Your task to perform on an android device: Add "bose quietcomfort 35" to the cart on bestbuy, then select checkout. Image 0: 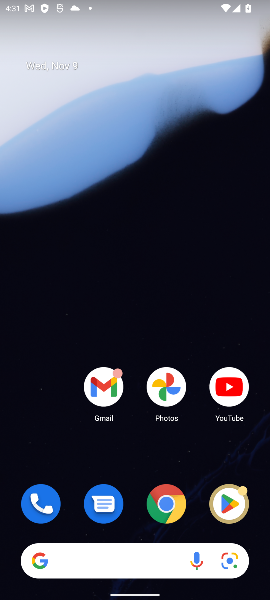
Step 0: click (114, 555)
Your task to perform on an android device: Add "bose quietcomfort 35" to the cart on bestbuy, then select checkout. Image 1: 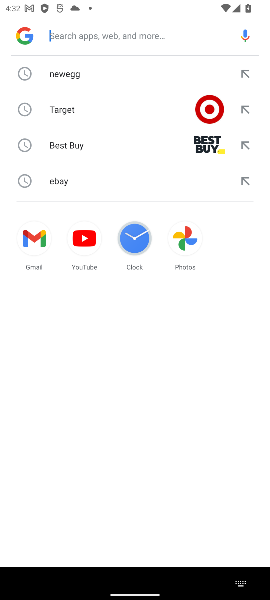
Step 1: click (78, 145)
Your task to perform on an android device: Add "bose quietcomfort 35" to the cart on bestbuy, then select checkout. Image 2: 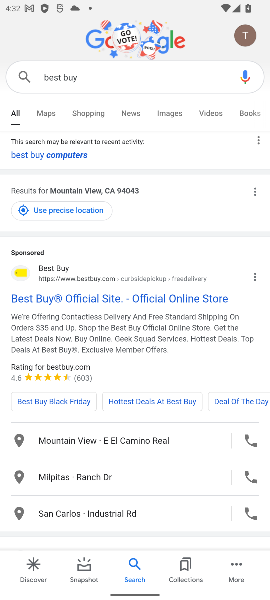
Step 2: click (97, 294)
Your task to perform on an android device: Add "bose quietcomfort 35" to the cart on bestbuy, then select checkout. Image 3: 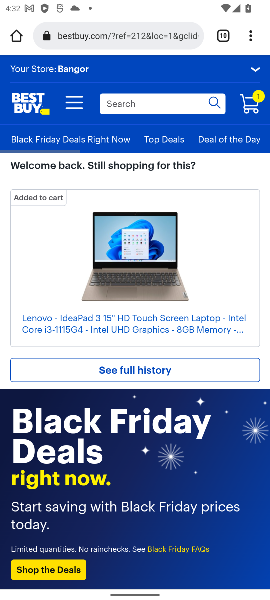
Step 3: click (147, 100)
Your task to perform on an android device: Add "bose quietcomfort 35" to the cart on bestbuy, then select checkout. Image 4: 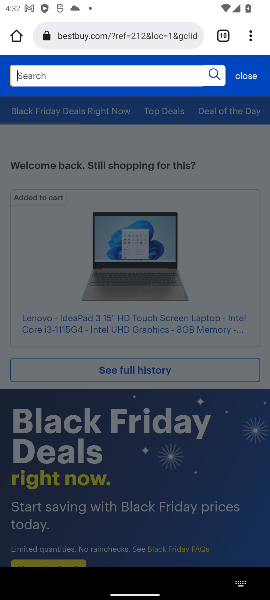
Step 4: type "bose quietcomfort 35"
Your task to perform on an android device: Add "bose quietcomfort 35" to the cart on bestbuy, then select checkout. Image 5: 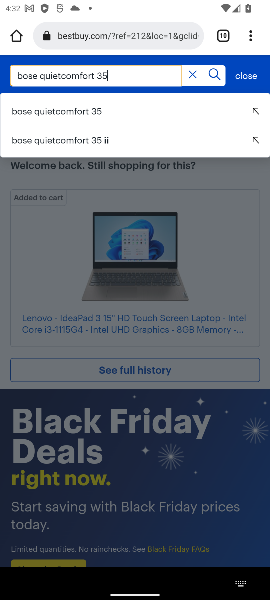
Step 5: click (69, 112)
Your task to perform on an android device: Add "bose quietcomfort 35" to the cart on bestbuy, then select checkout. Image 6: 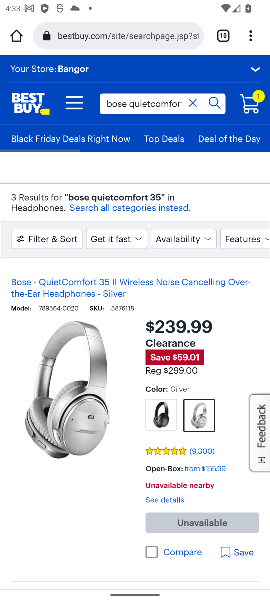
Step 6: click (193, 103)
Your task to perform on an android device: Add "bose quietcomfort 35" to the cart on bestbuy, then select checkout. Image 7: 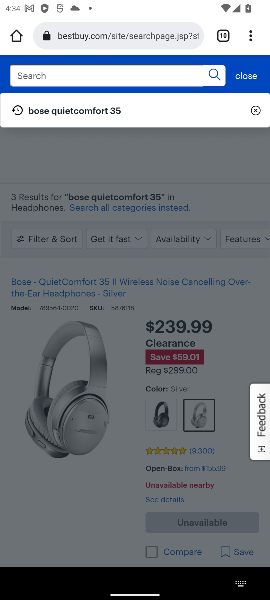
Step 7: type "bose quietcomfort 35"
Your task to perform on an android device: Add "bose quietcomfort 35" to the cart on bestbuy, then select checkout. Image 8: 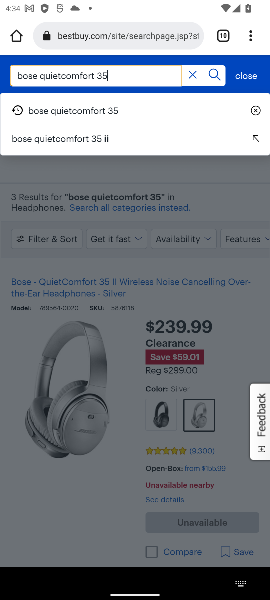
Step 8: click (67, 108)
Your task to perform on an android device: Add "bose quietcomfort 35" to the cart on bestbuy, then select checkout. Image 9: 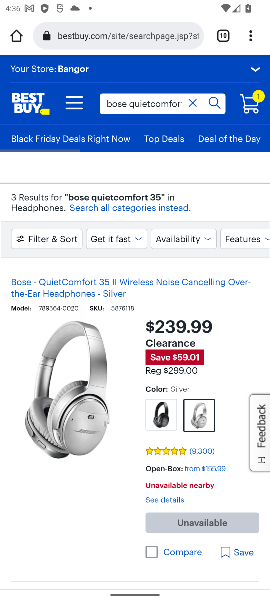
Step 9: click (165, 330)
Your task to perform on an android device: Add "bose quietcomfort 35" to the cart on bestbuy, then select checkout. Image 10: 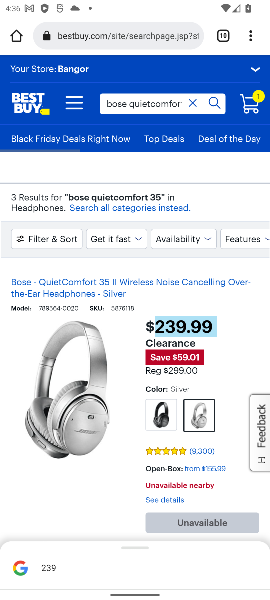
Step 10: task complete